Your task to perform on an android device: Go to notification settings Image 0: 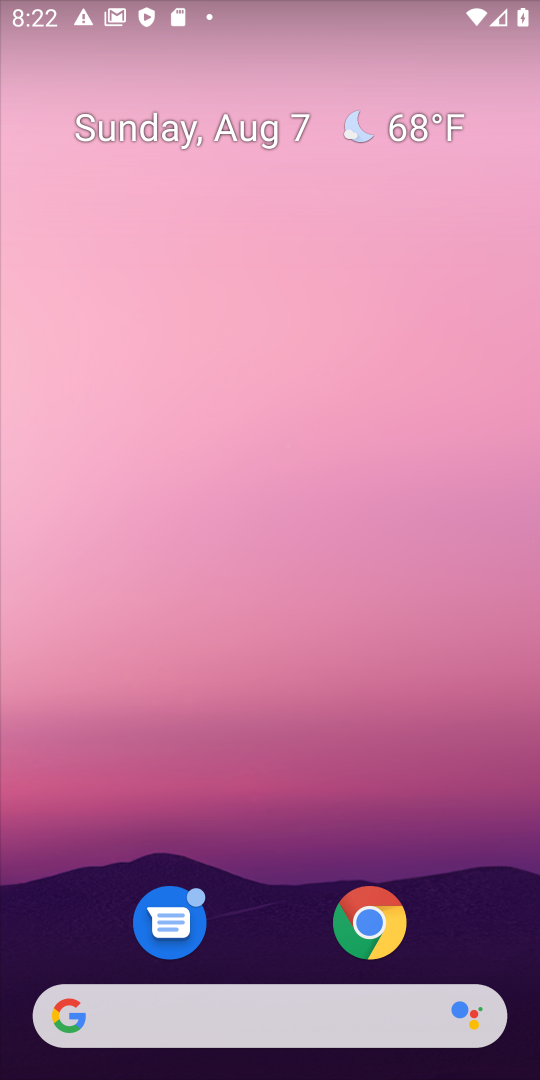
Step 0: drag from (382, 599) to (421, 105)
Your task to perform on an android device: Go to notification settings Image 1: 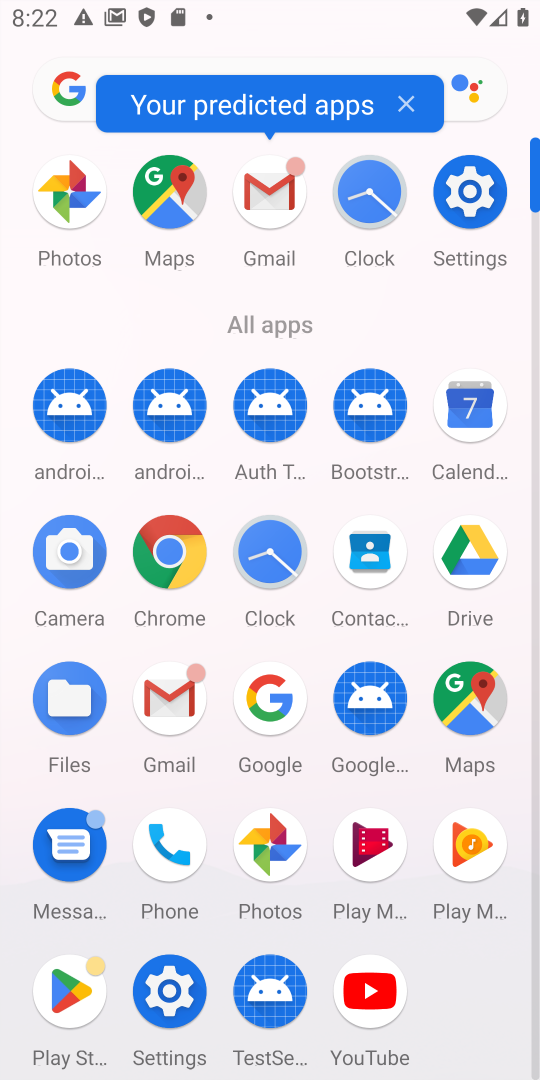
Step 1: click (482, 193)
Your task to perform on an android device: Go to notification settings Image 2: 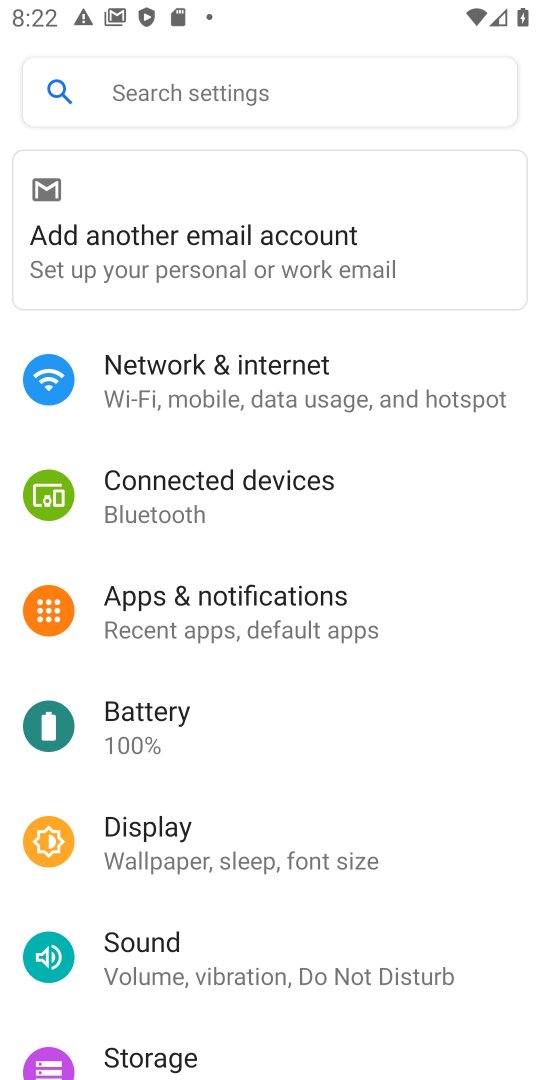
Step 2: task complete